Your task to perform on an android device: When is my next appointment? Image 0: 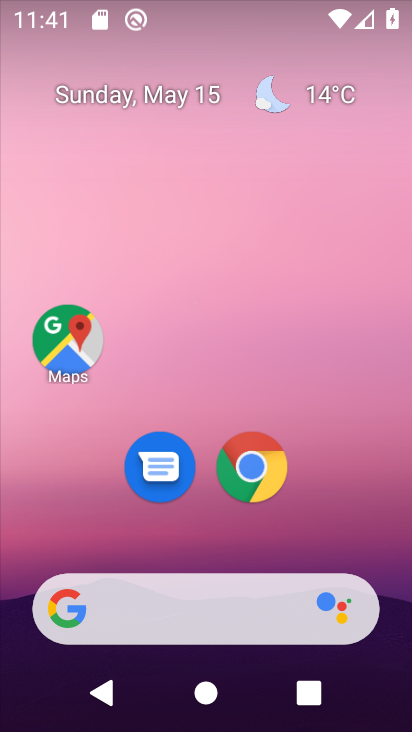
Step 0: drag from (213, 546) to (200, 172)
Your task to perform on an android device: When is my next appointment? Image 1: 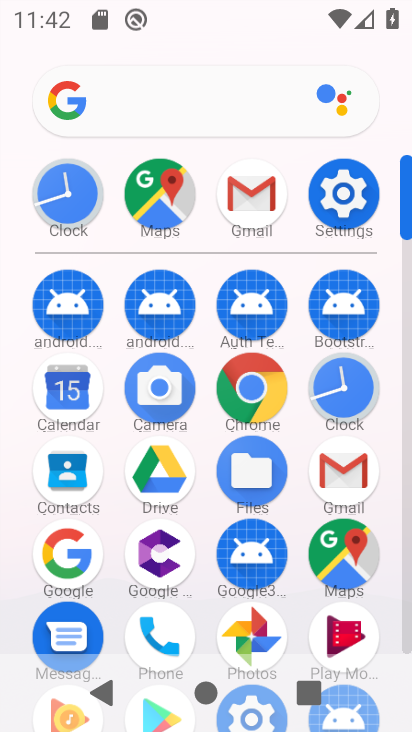
Step 1: click (66, 389)
Your task to perform on an android device: When is my next appointment? Image 2: 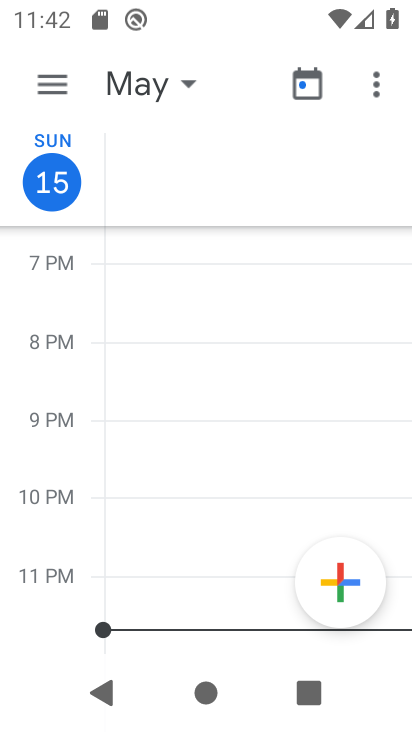
Step 2: click (89, 189)
Your task to perform on an android device: When is my next appointment? Image 3: 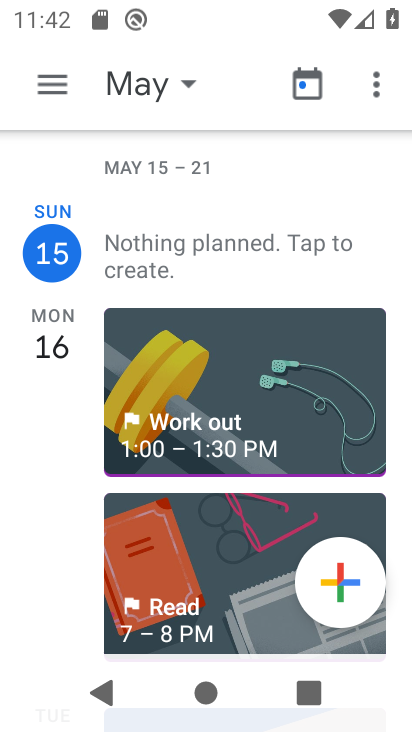
Step 3: task complete